Your task to perform on an android device: see tabs open on other devices in the chrome app Image 0: 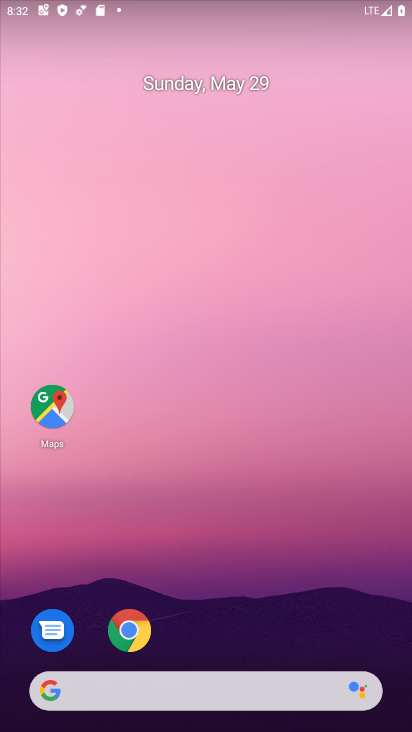
Step 0: click (129, 624)
Your task to perform on an android device: see tabs open on other devices in the chrome app Image 1: 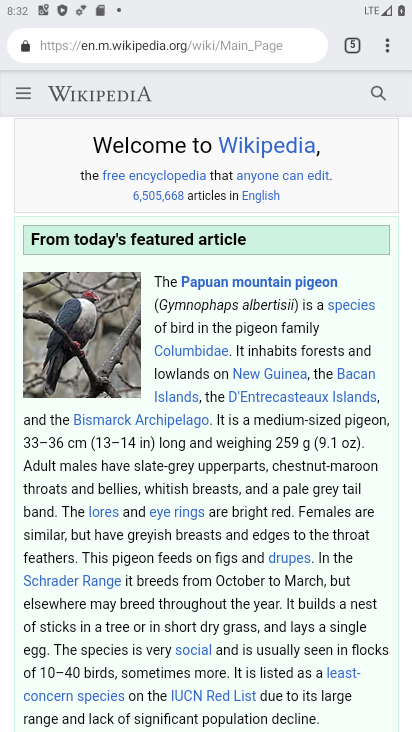
Step 1: click (353, 43)
Your task to perform on an android device: see tabs open on other devices in the chrome app Image 2: 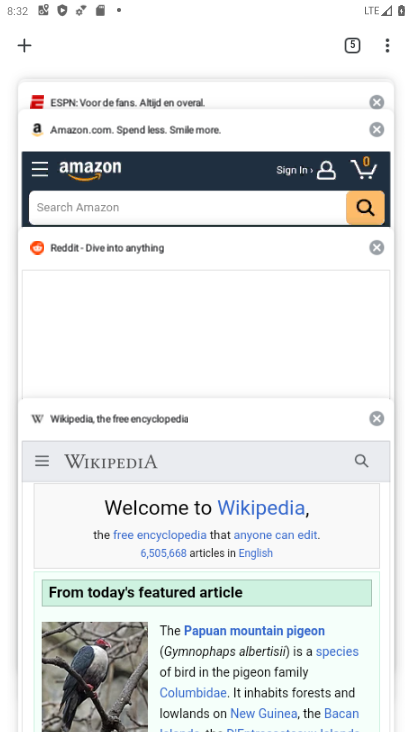
Step 2: task complete